Your task to perform on an android device: View the shopping cart on bestbuy.com. Image 0: 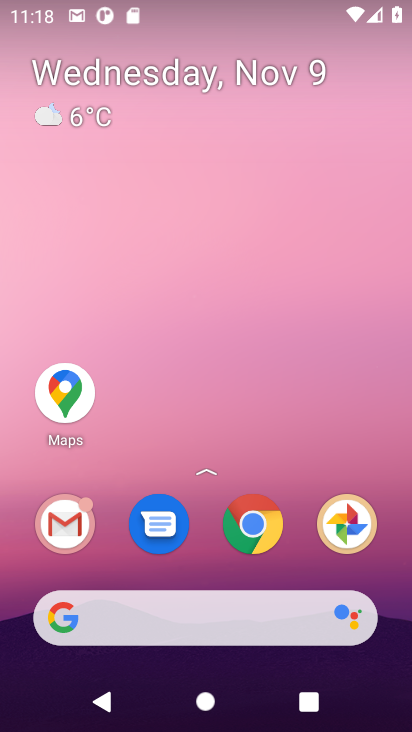
Step 0: click (259, 516)
Your task to perform on an android device: View the shopping cart on bestbuy.com. Image 1: 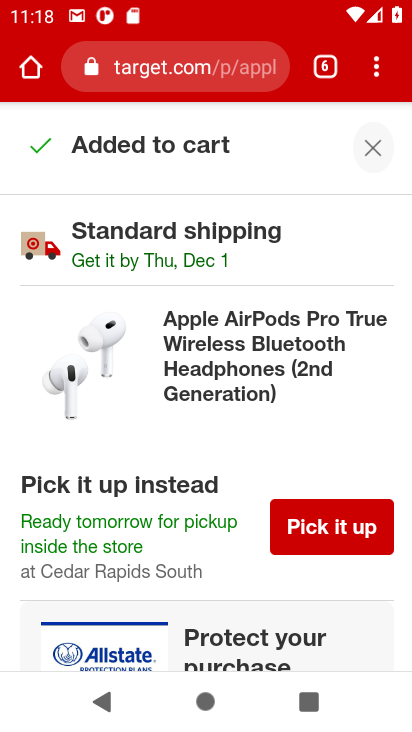
Step 1: click (331, 67)
Your task to perform on an android device: View the shopping cart on bestbuy.com. Image 2: 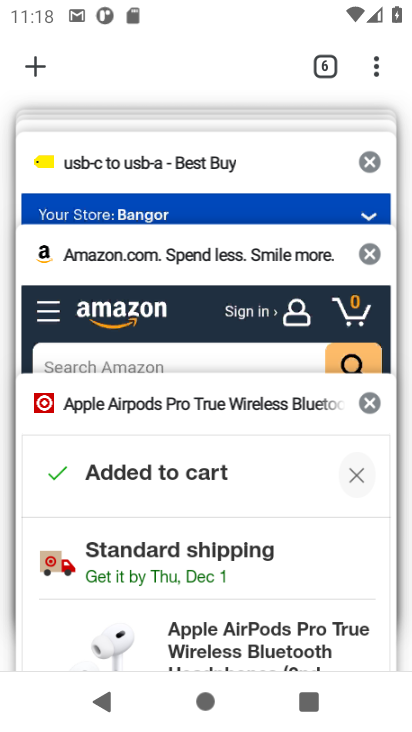
Step 2: click (149, 173)
Your task to perform on an android device: View the shopping cart on bestbuy.com. Image 3: 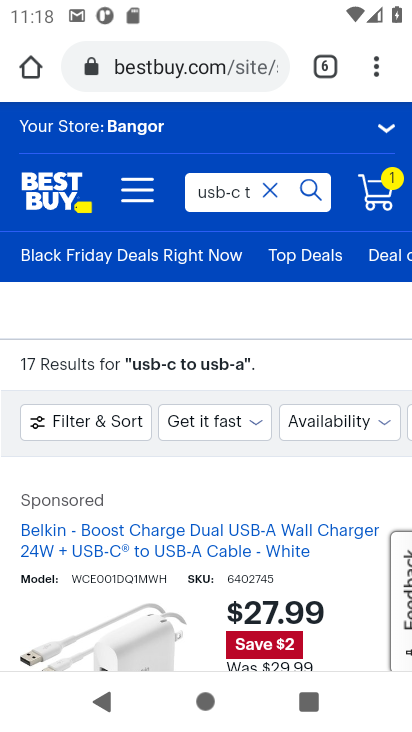
Step 3: click (377, 199)
Your task to perform on an android device: View the shopping cart on bestbuy.com. Image 4: 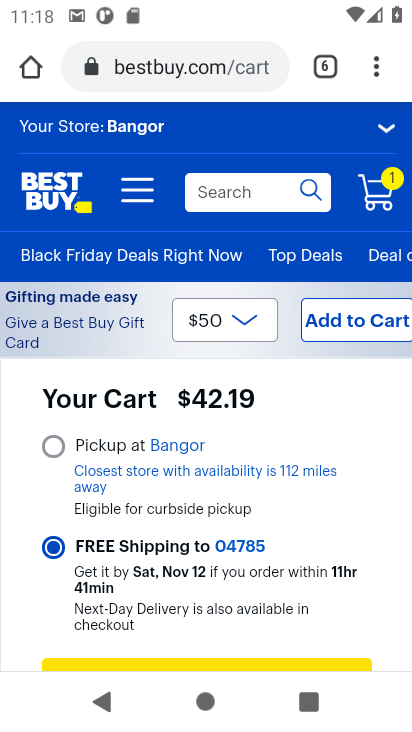
Step 4: task complete